Your task to perform on an android device: turn off translation in the chrome app Image 0: 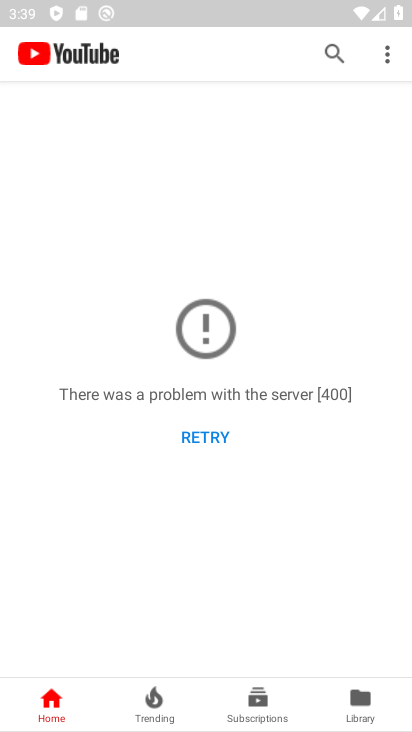
Step 0: press home button
Your task to perform on an android device: turn off translation in the chrome app Image 1: 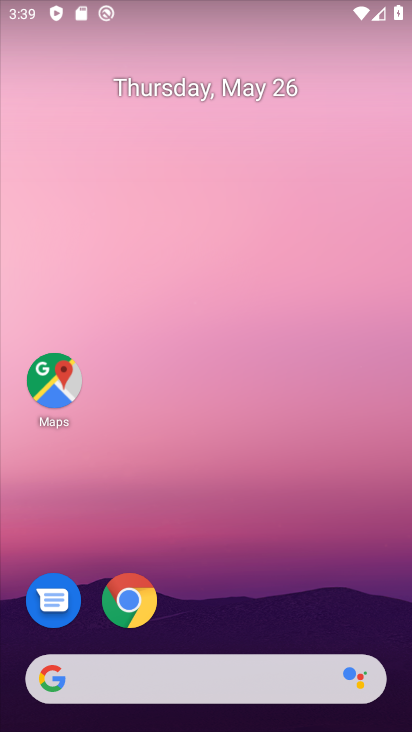
Step 1: click (147, 610)
Your task to perform on an android device: turn off translation in the chrome app Image 2: 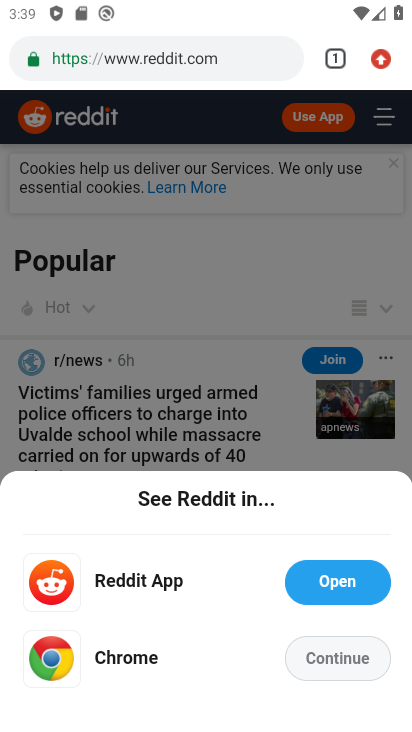
Step 2: click (383, 60)
Your task to perform on an android device: turn off translation in the chrome app Image 3: 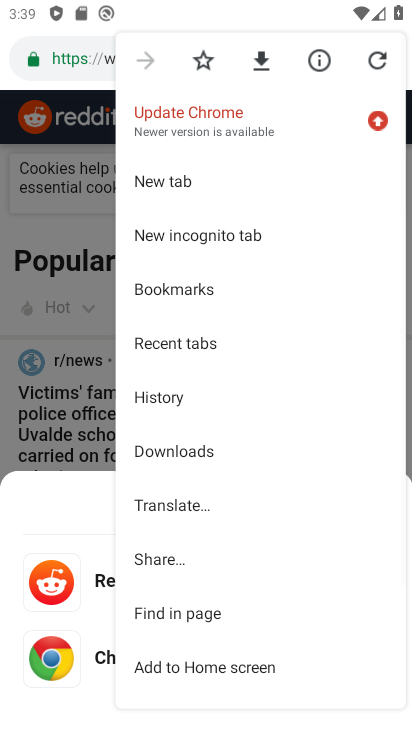
Step 3: drag from (176, 616) to (268, 161)
Your task to perform on an android device: turn off translation in the chrome app Image 4: 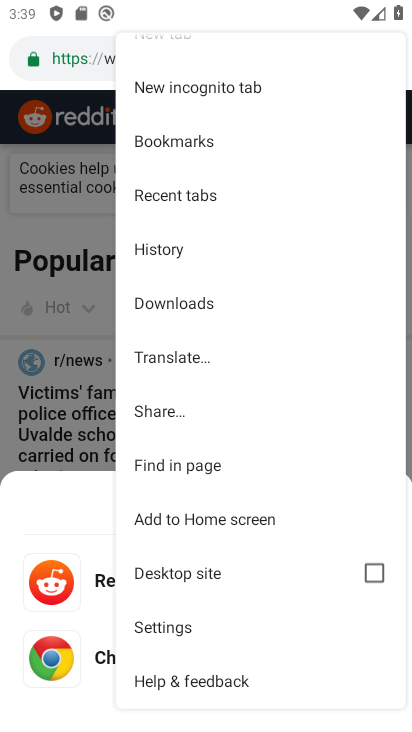
Step 4: click (180, 626)
Your task to perform on an android device: turn off translation in the chrome app Image 5: 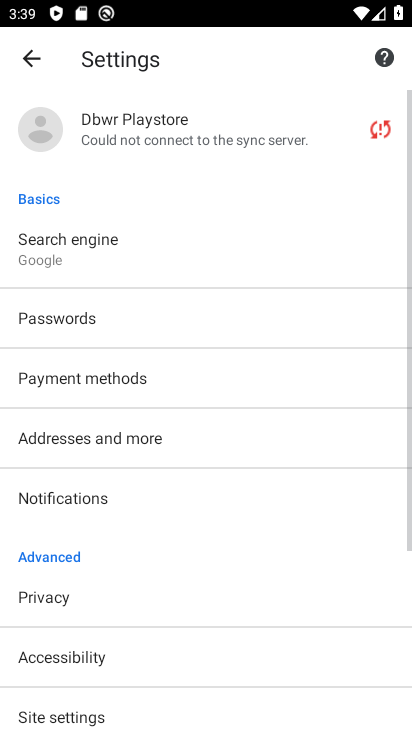
Step 5: drag from (128, 638) to (185, 254)
Your task to perform on an android device: turn off translation in the chrome app Image 6: 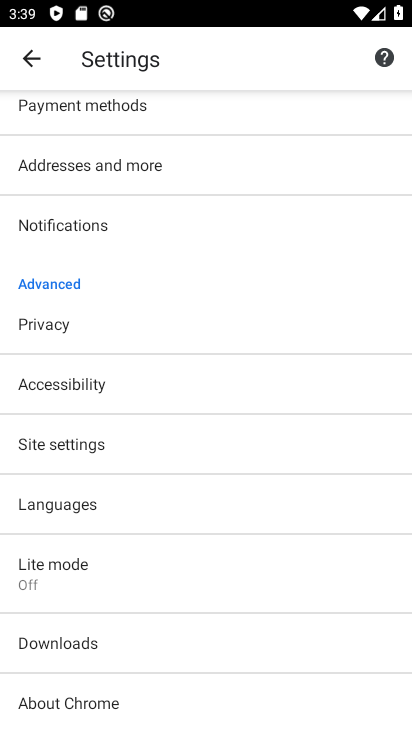
Step 6: click (84, 505)
Your task to perform on an android device: turn off translation in the chrome app Image 7: 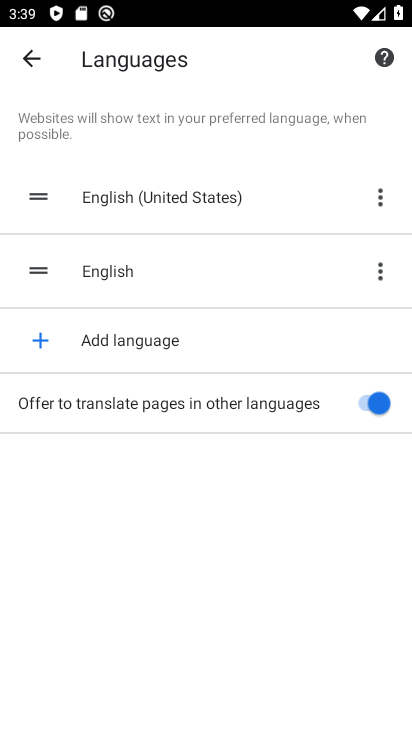
Step 7: click (338, 409)
Your task to perform on an android device: turn off translation in the chrome app Image 8: 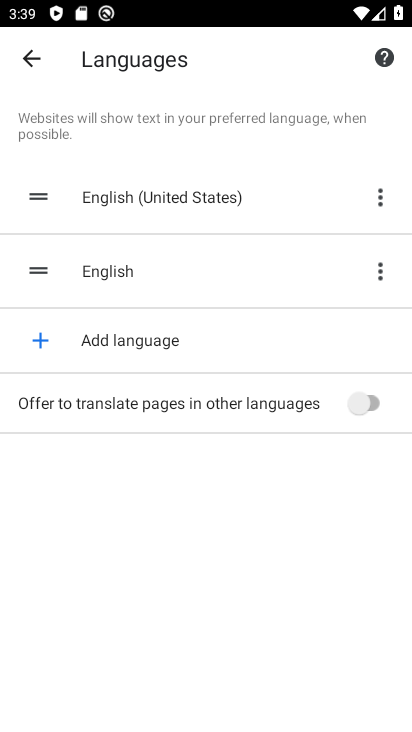
Step 8: task complete